Your task to perform on an android device: Open Google Image 0: 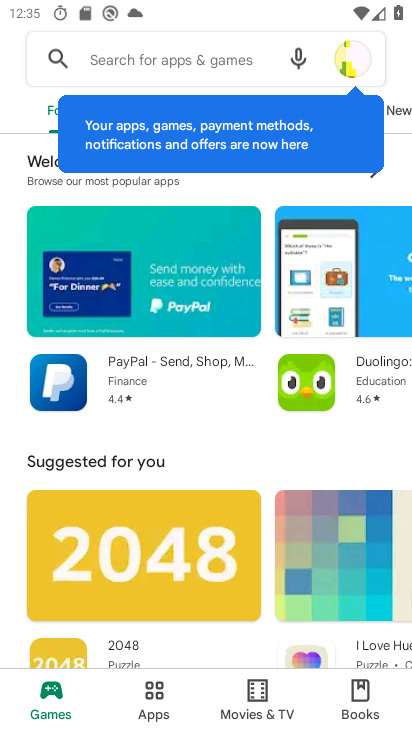
Step 0: press home button
Your task to perform on an android device: Open Google Image 1: 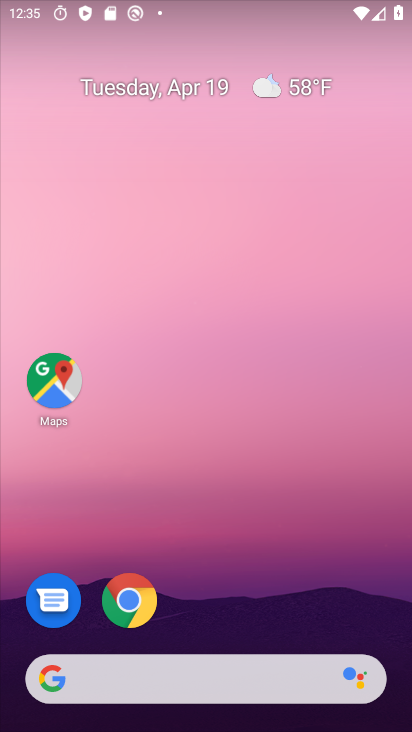
Step 1: click (177, 670)
Your task to perform on an android device: Open Google Image 2: 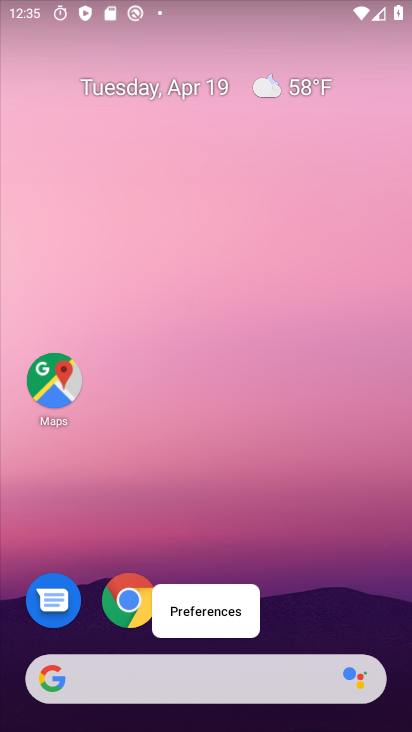
Step 2: click (87, 664)
Your task to perform on an android device: Open Google Image 3: 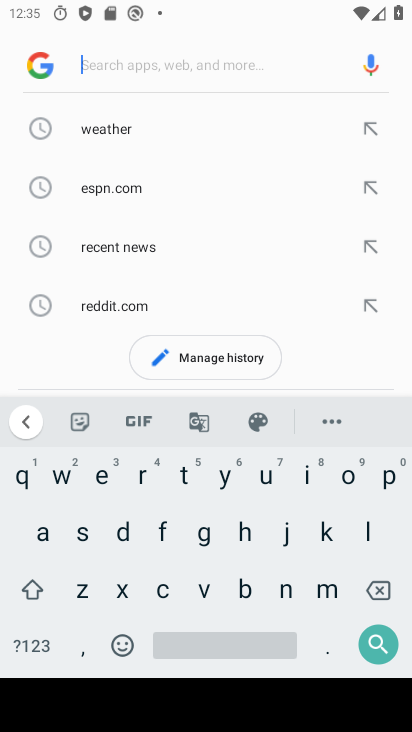
Step 3: click (46, 66)
Your task to perform on an android device: Open Google Image 4: 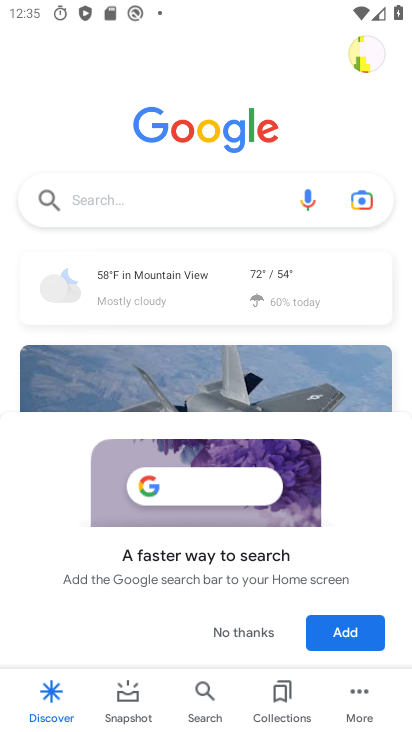
Step 4: click (265, 629)
Your task to perform on an android device: Open Google Image 5: 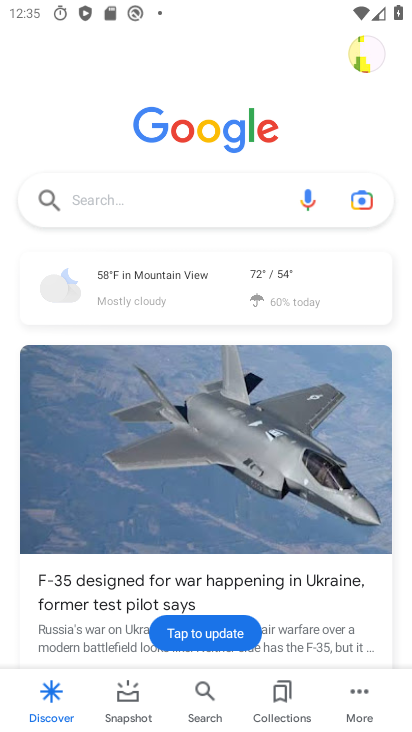
Step 5: click (165, 216)
Your task to perform on an android device: Open Google Image 6: 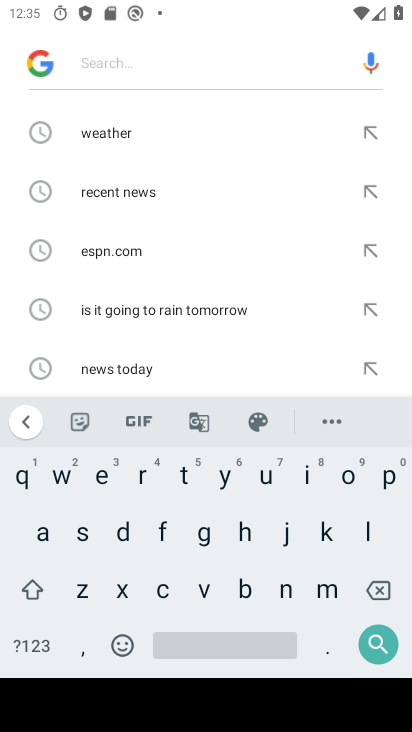
Step 6: click (203, 539)
Your task to perform on an android device: Open Google Image 7: 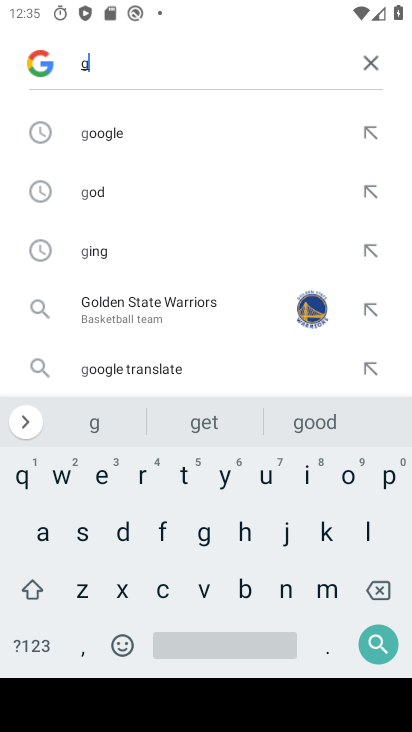
Step 7: click (348, 479)
Your task to perform on an android device: Open Google Image 8: 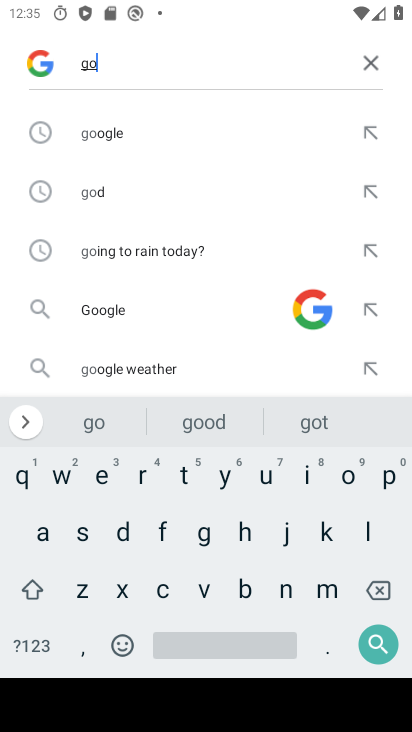
Step 8: click (348, 479)
Your task to perform on an android device: Open Google Image 9: 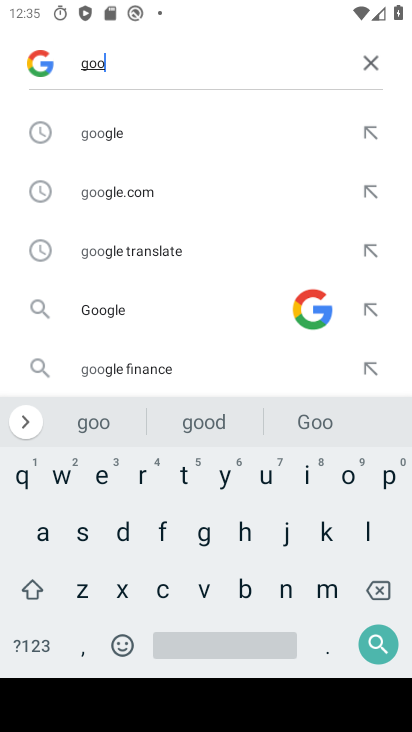
Step 9: click (146, 188)
Your task to perform on an android device: Open Google Image 10: 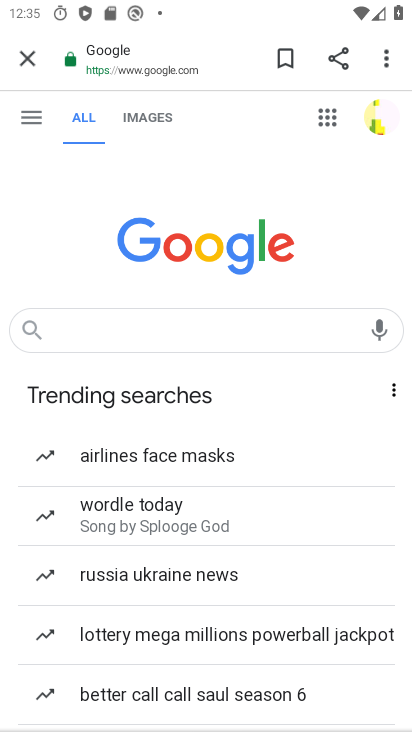
Step 10: task complete